Your task to perform on an android device: turn smart compose on in the gmail app Image 0: 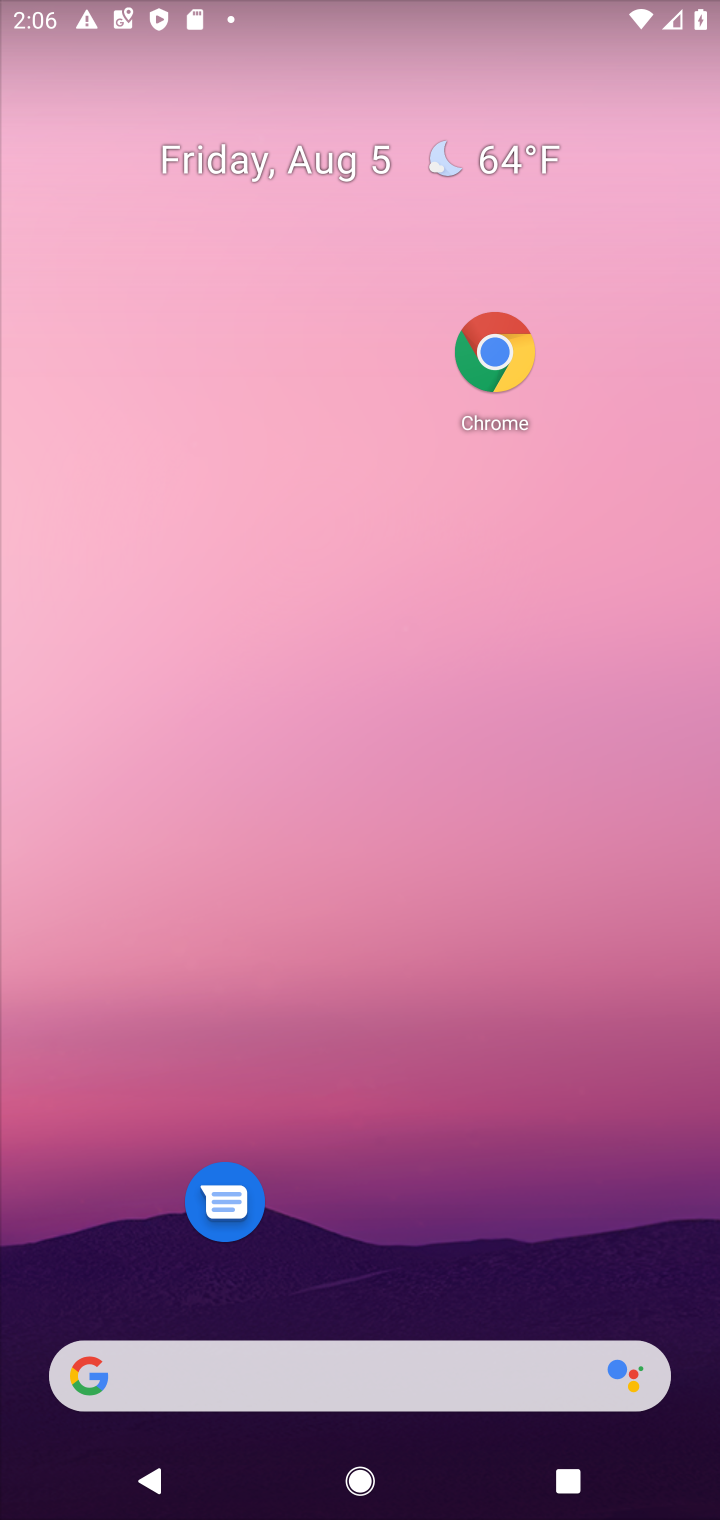
Step 0: drag from (533, 1161) to (272, 129)
Your task to perform on an android device: turn smart compose on in the gmail app Image 1: 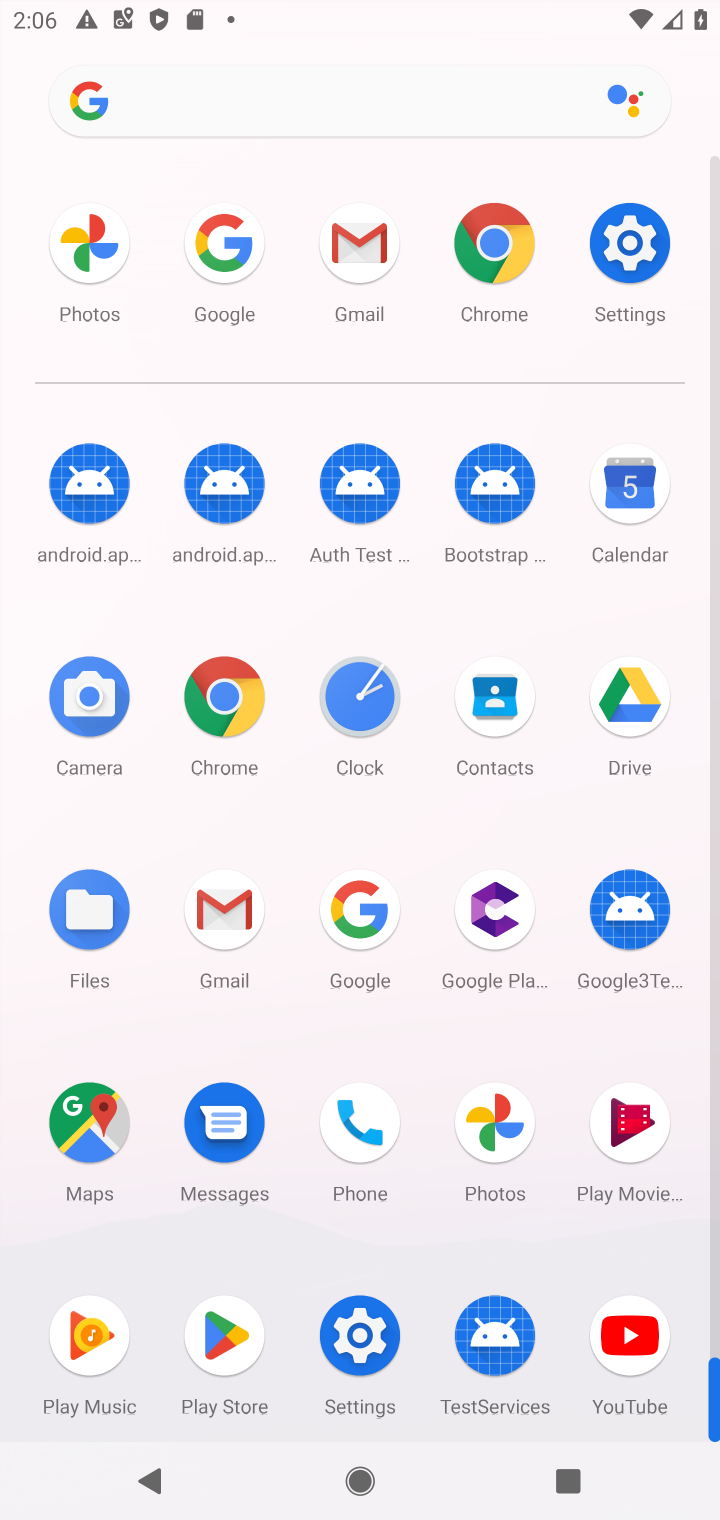
Step 1: click (218, 904)
Your task to perform on an android device: turn smart compose on in the gmail app Image 2: 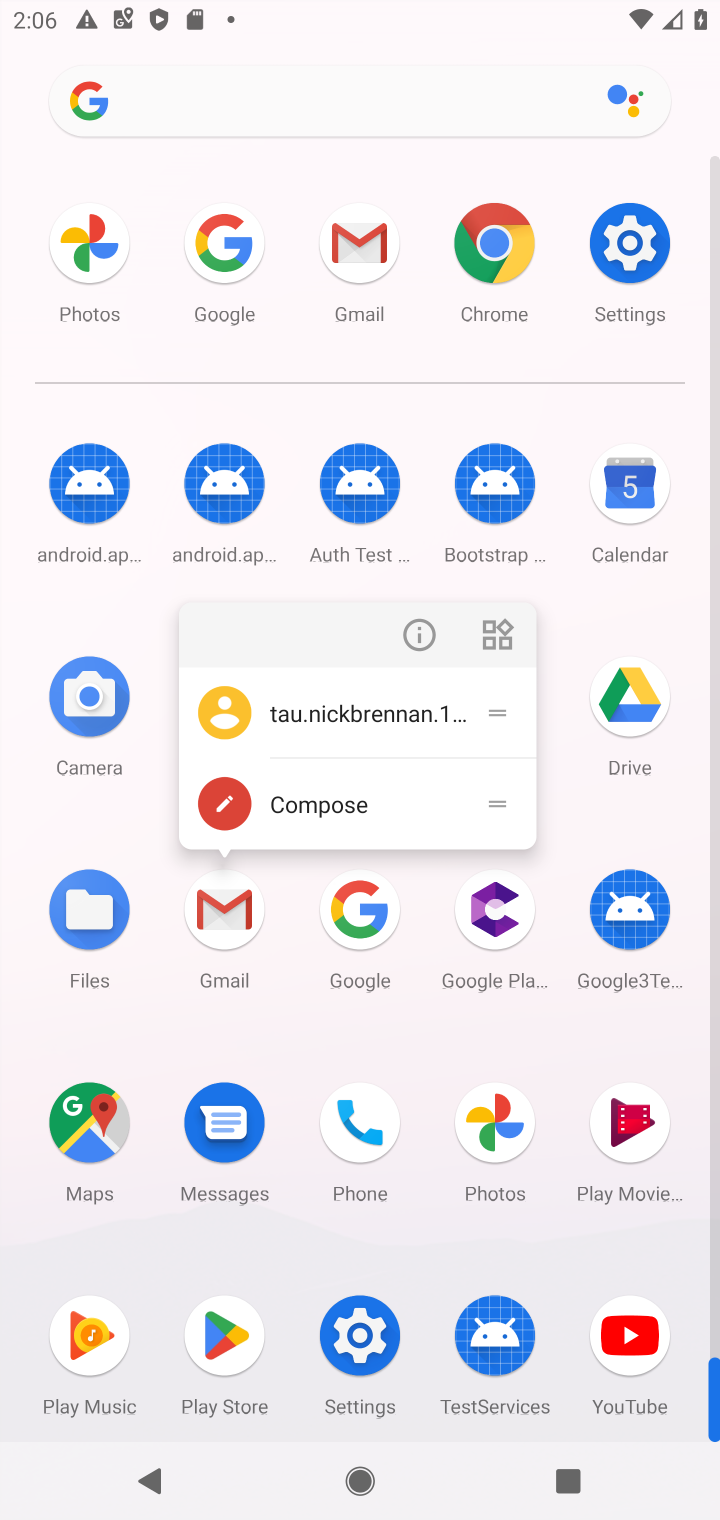
Step 2: click (221, 909)
Your task to perform on an android device: turn smart compose on in the gmail app Image 3: 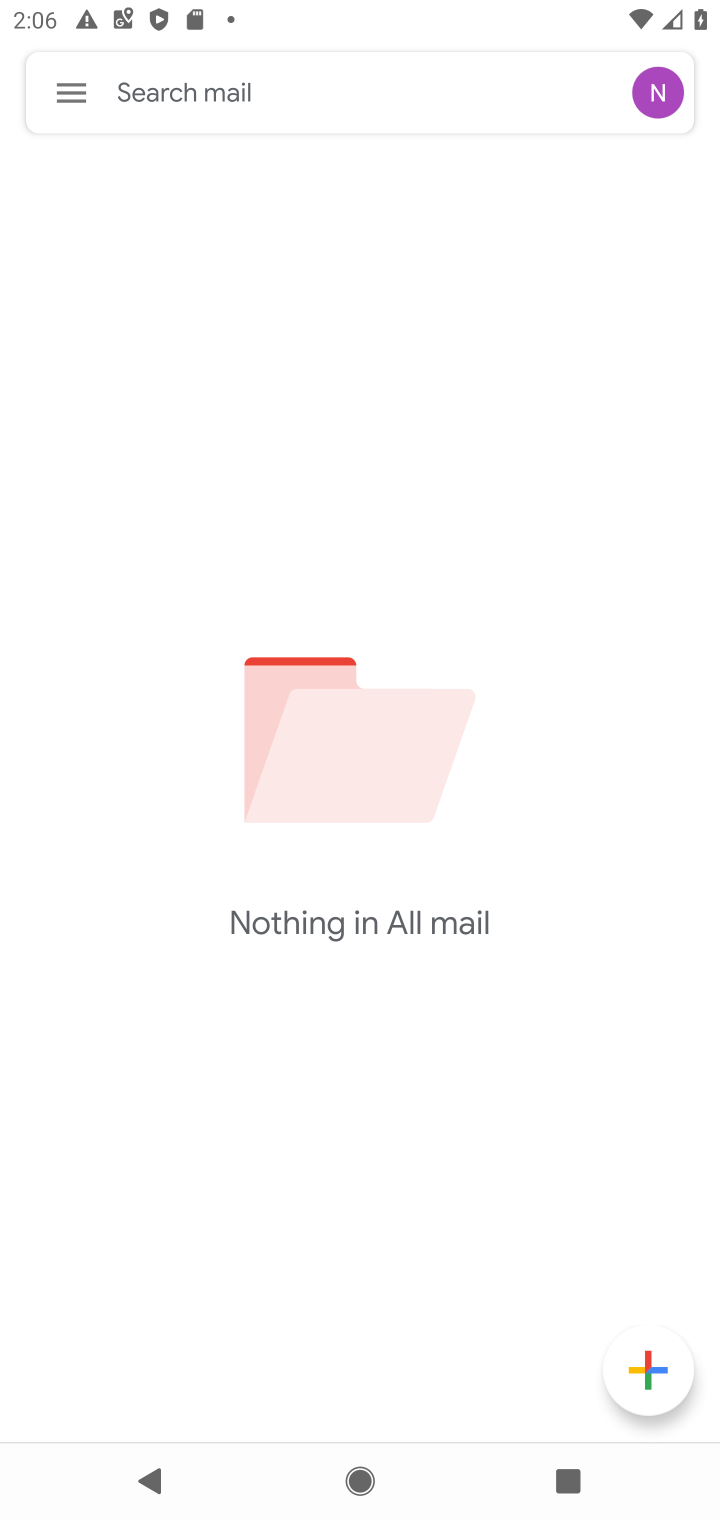
Step 3: click (72, 83)
Your task to perform on an android device: turn smart compose on in the gmail app Image 4: 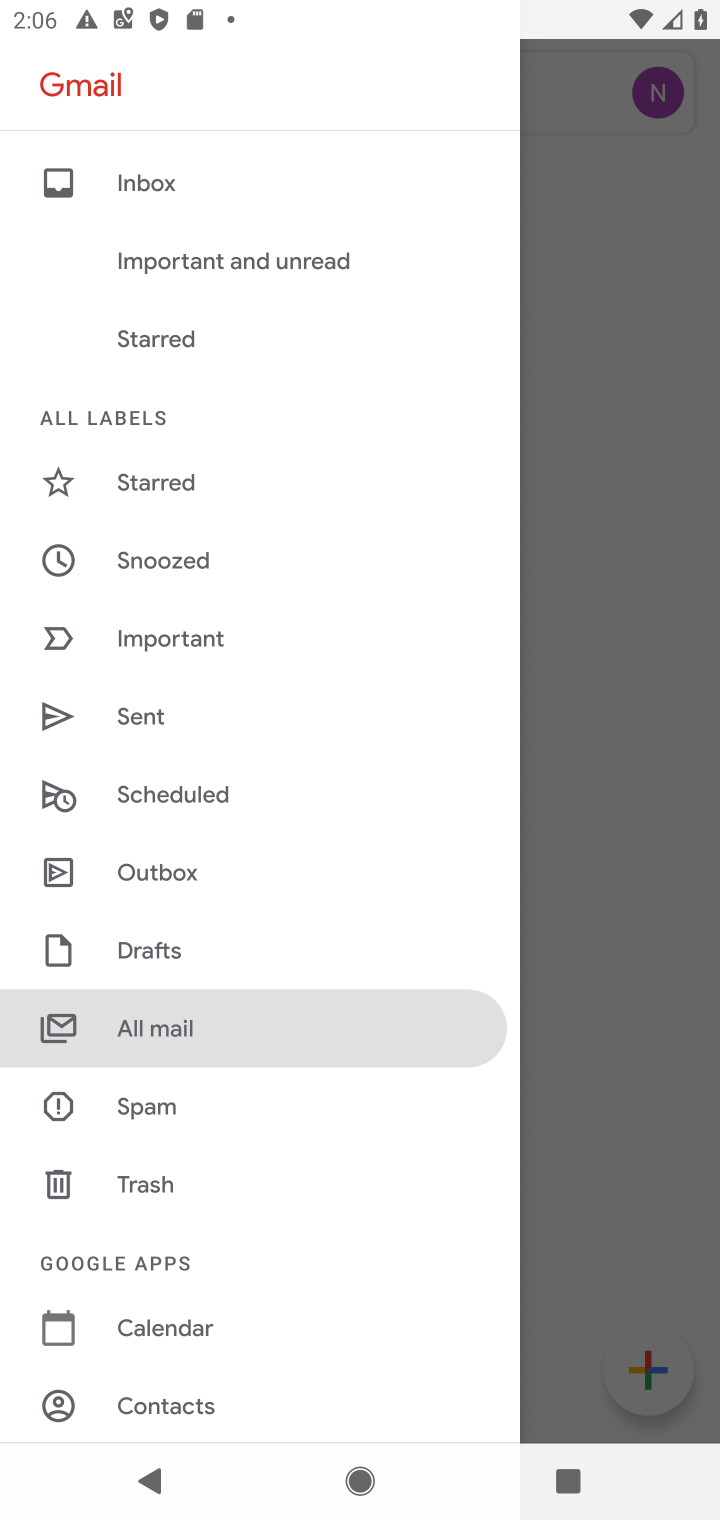
Step 4: drag from (210, 1225) to (308, 586)
Your task to perform on an android device: turn smart compose on in the gmail app Image 5: 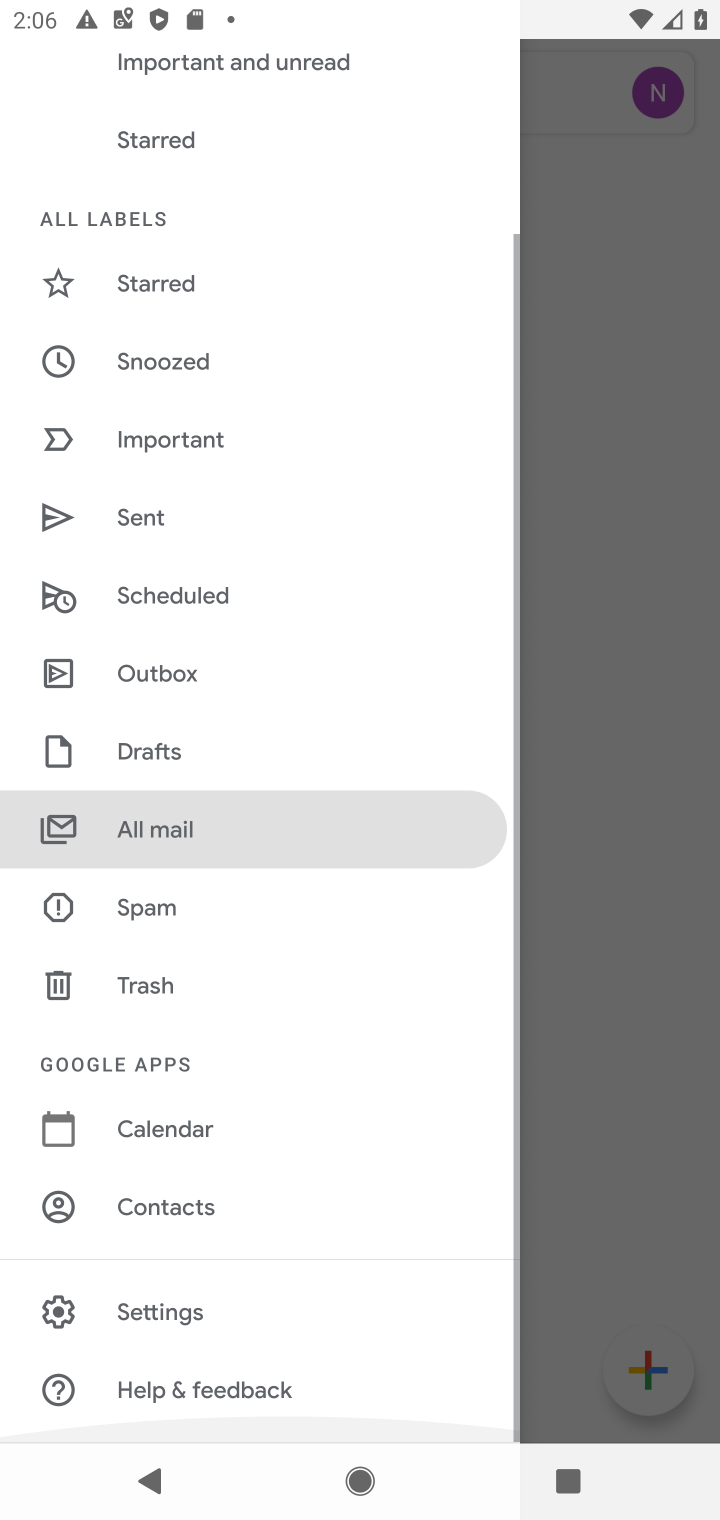
Step 5: click (197, 1313)
Your task to perform on an android device: turn smart compose on in the gmail app Image 6: 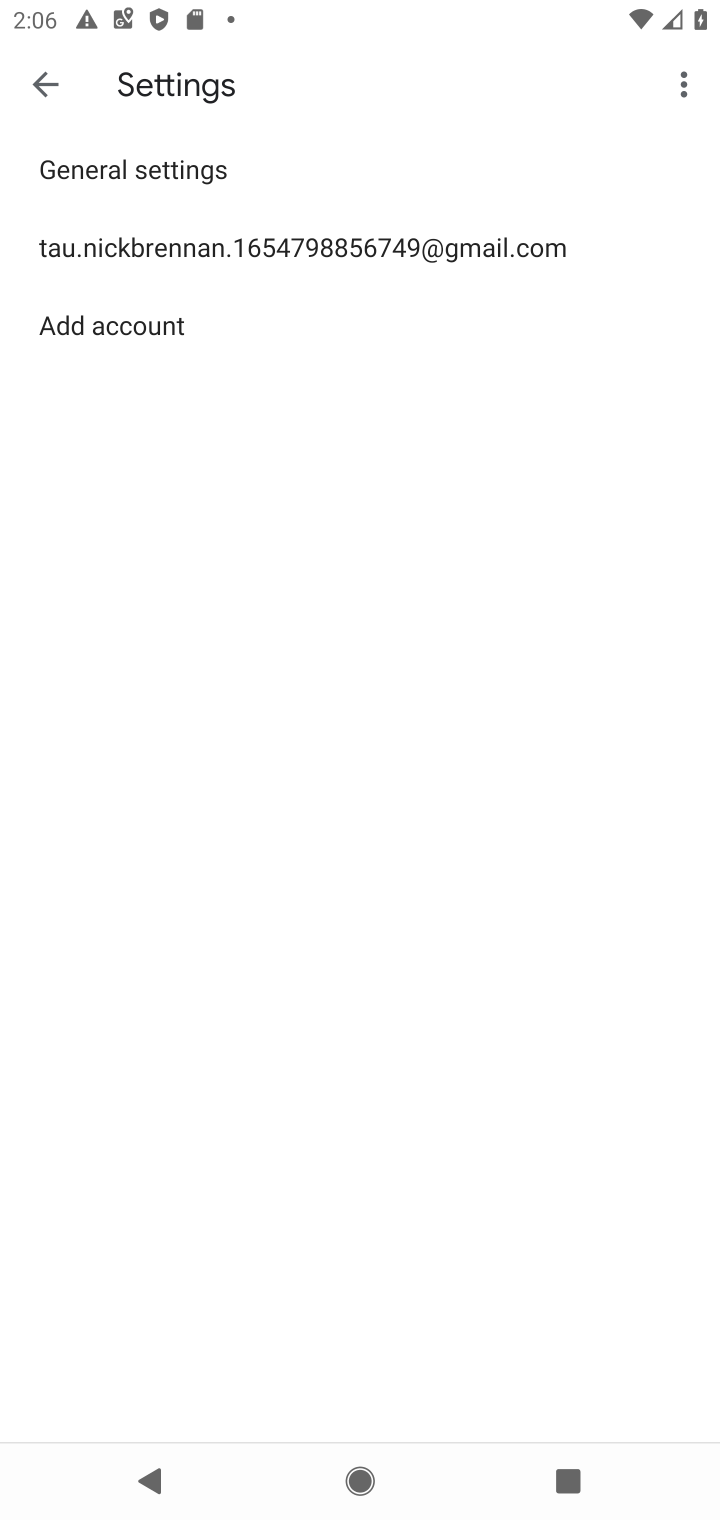
Step 6: click (332, 274)
Your task to perform on an android device: turn smart compose on in the gmail app Image 7: 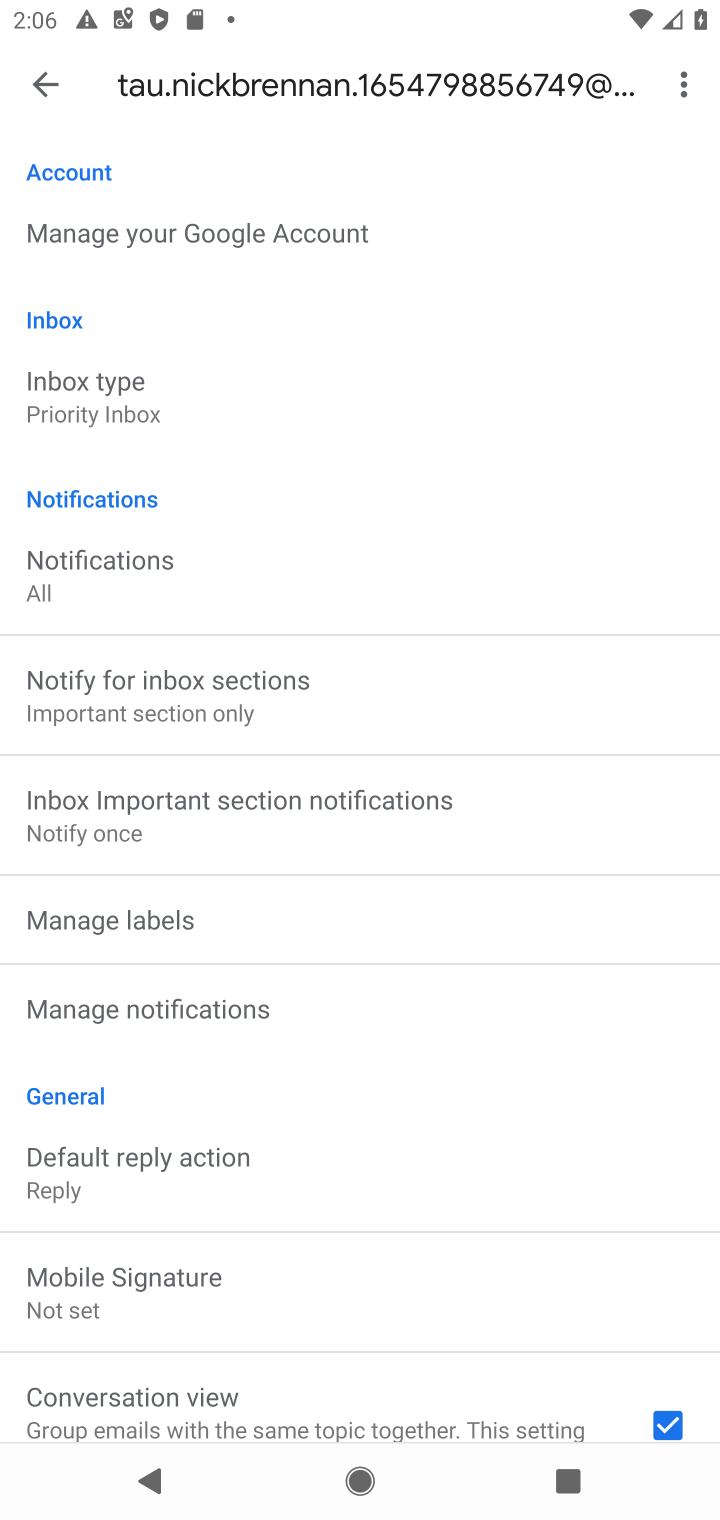
Step 7: task complete